Your task to perform on an android device: Is it going to rain tomorrow? Image 0: 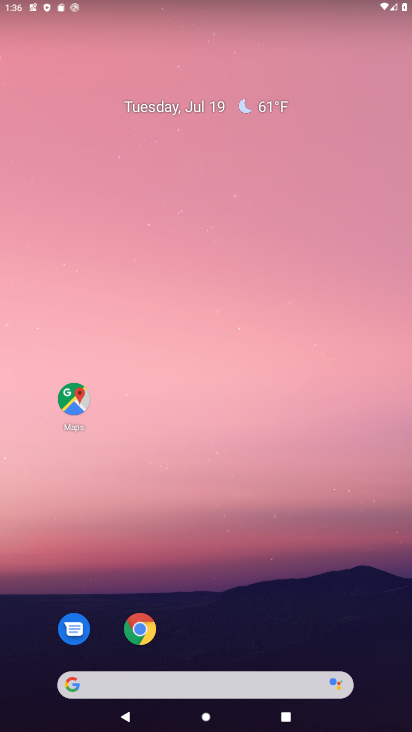
Step 0: click (255, 109)
Your task to perform on an android device: Is it going to rain tomorrow? Image 1: 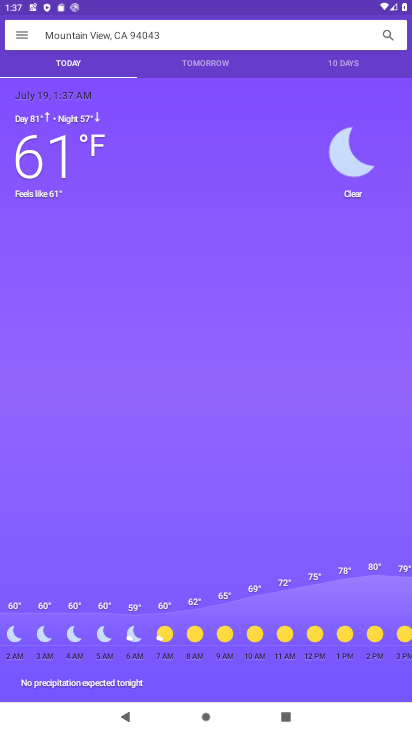
Step 1: click (197, 63)
Your task to perform on an android device: Is it going to rain tomorrow? Image 2: 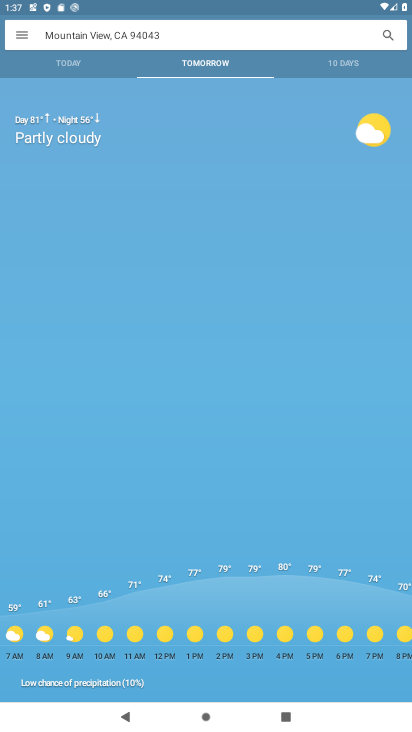
Step 2: task complete